Your task to perform on an android device: remove spam from my inbox in the gmail app Image 0: 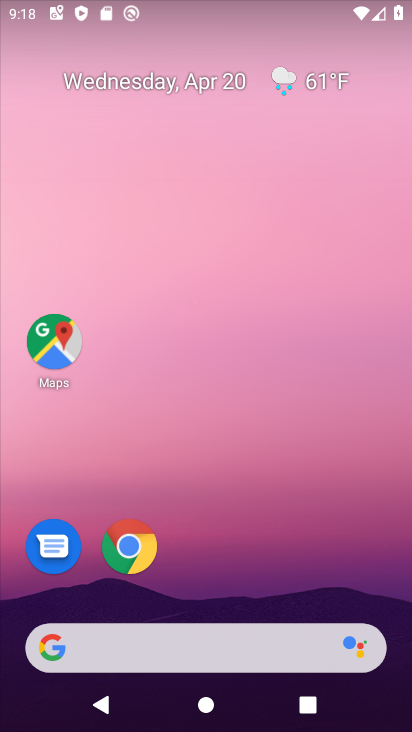
Step 0: drag from (170, 472) to (159, 299)
Your task to perform on an android device: remove spam from my inbox in the gmail app Image 1: 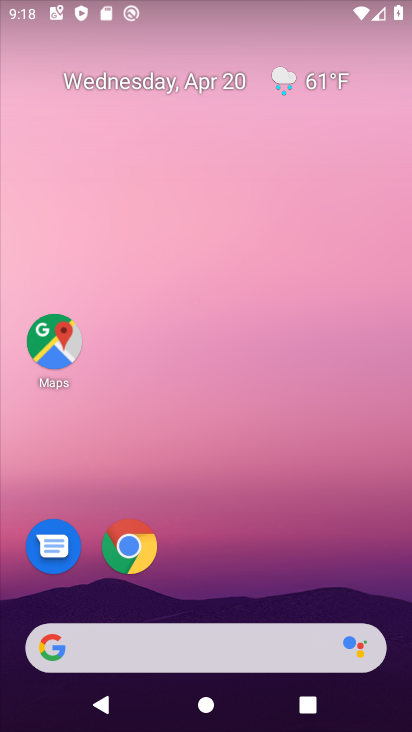
Step 1: drag from (233, 628) to (177, 179)
Your task to perform on an android device: remove spam from my inbox in the gmail app Image 2: 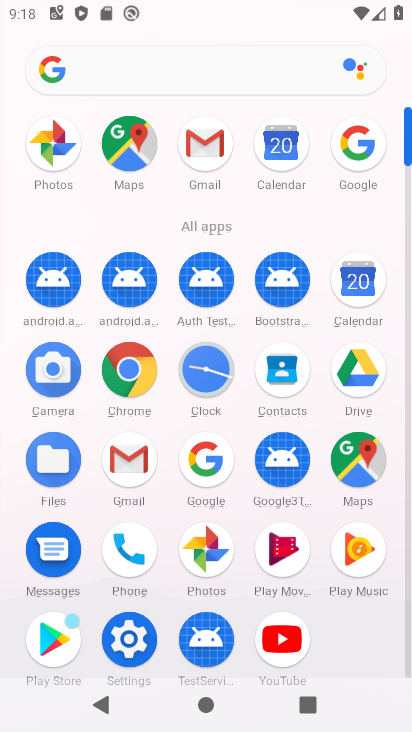
Step 2: click (215, 144)
Your task to perform on an android device: remove spam from my inbox in the gmail app Image 3: 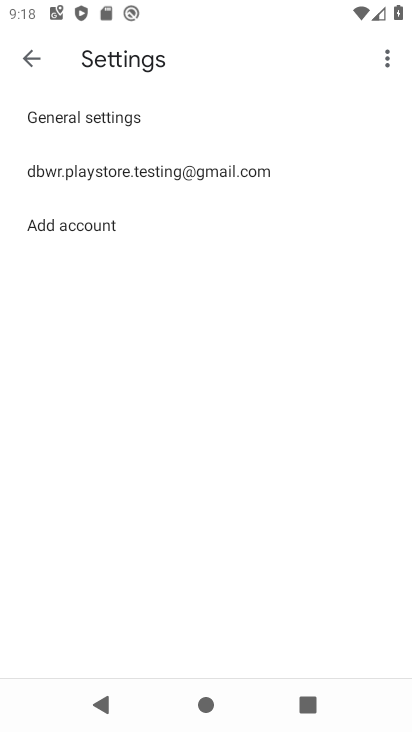
Step 3: click (18, 60)
Your task to perform on an android device: remove spam from my inbox in the gmail app Image 4: 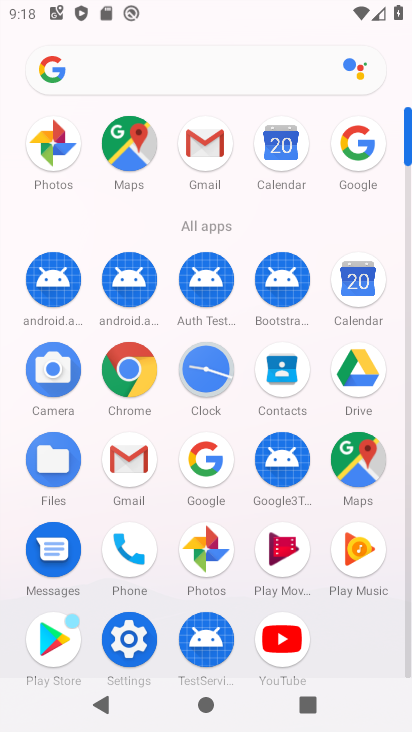
Step 4: click (207, 146)
Your task to perform on an android device: remove spam from my inbox in the gmail app Image 5: 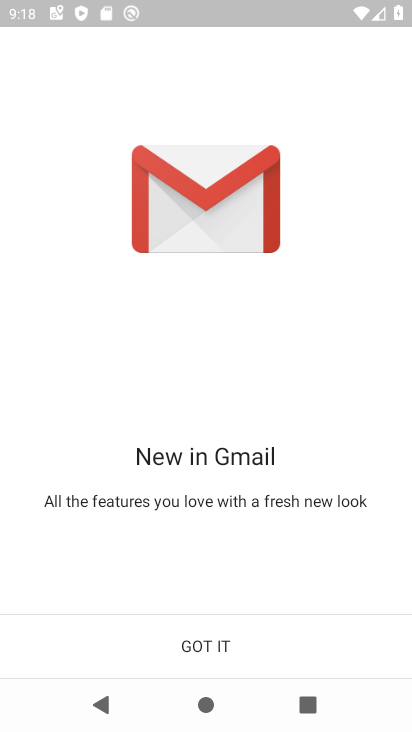
Step 5: click (219, 645)
Your task to perform on an android device: remove spam from my inbox in the gmail app Image 6: 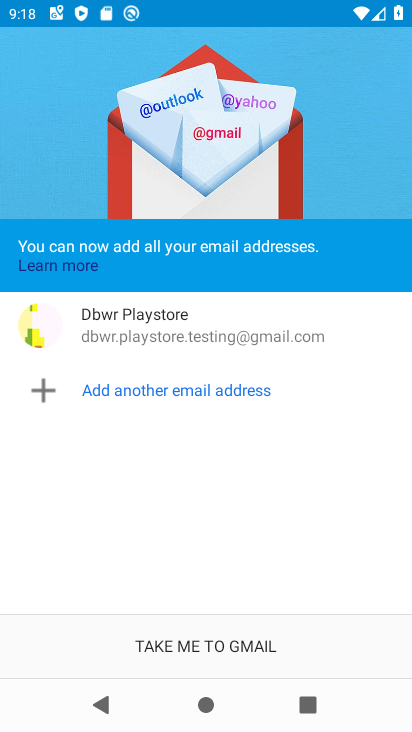
Step 6: click (207, 647)
Your task to perform on an android device: remove spam from my inbox in the gmail app Image 7: 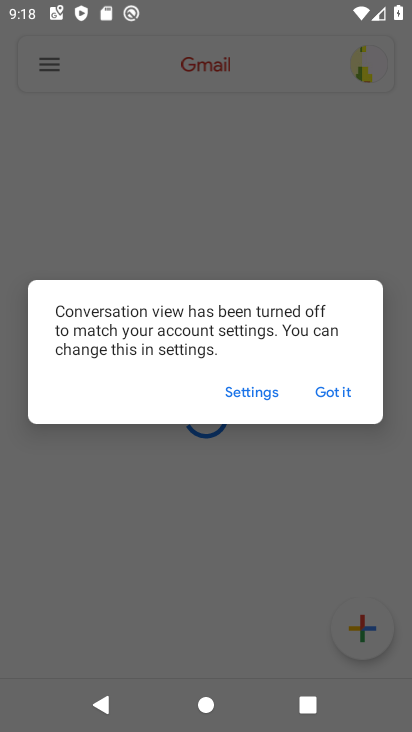
Step 7: click (328, 394)
Your task to perform on an android device: remove spam from my inbox in the gmail app Image 8: 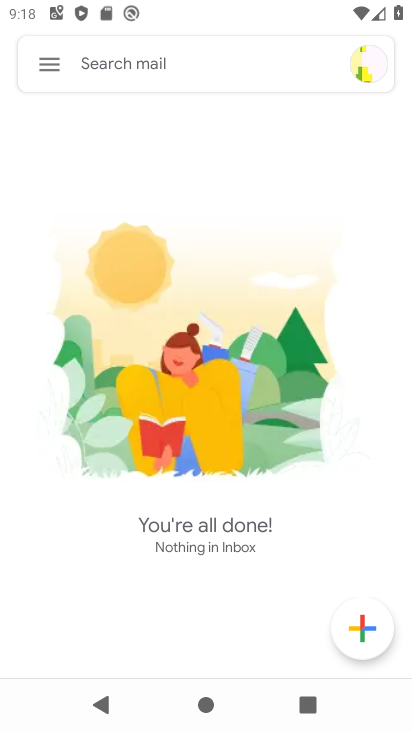
Step 8: click (49, 66)
Your task to perform on an android device: remove spam from my inbox in the gmail app Image 9: 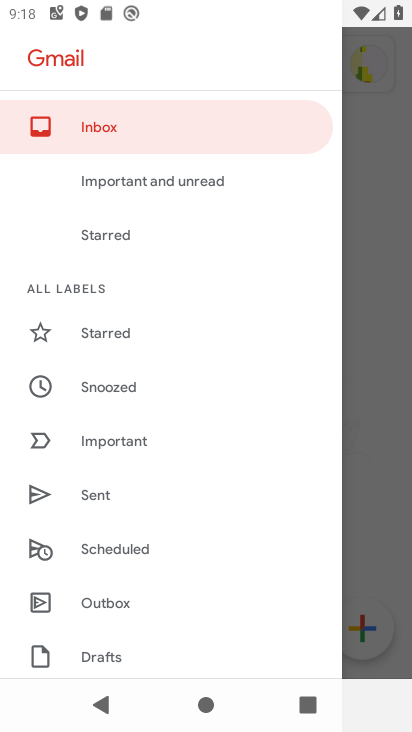
Step 9: drag from (113, 655) to (141, 319)
Your task to perform on an android device: remove spam from my inbox in the gmail app Image 10: 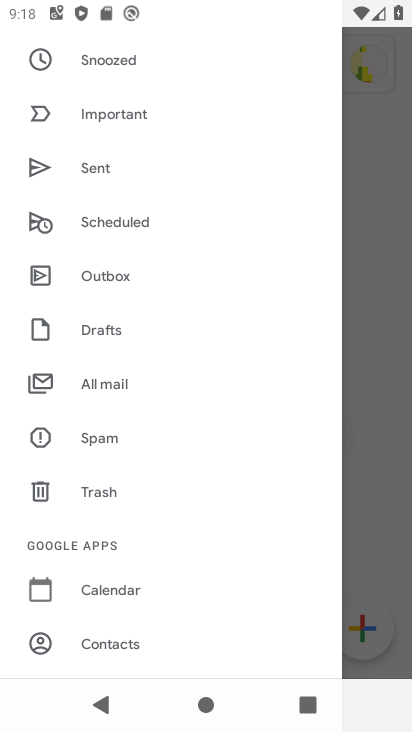
Step 10: click (106, 438)
Your task to perform on an android device: remove spam from my inbox in the gmail app Image 11: 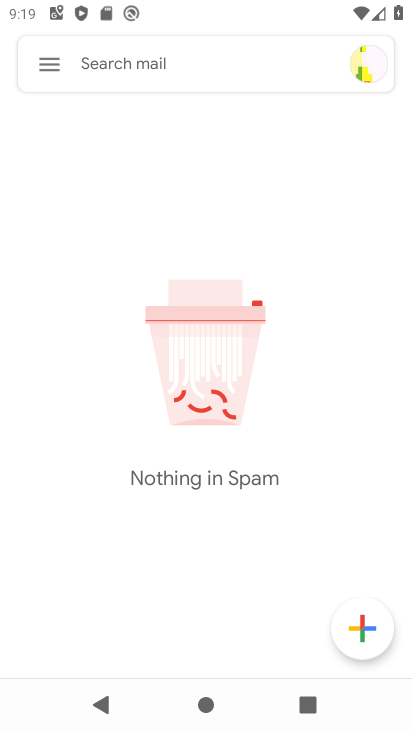
Step 11: task complete